Your task to perform on an android device: change notification settings in the gmail app Image 0: 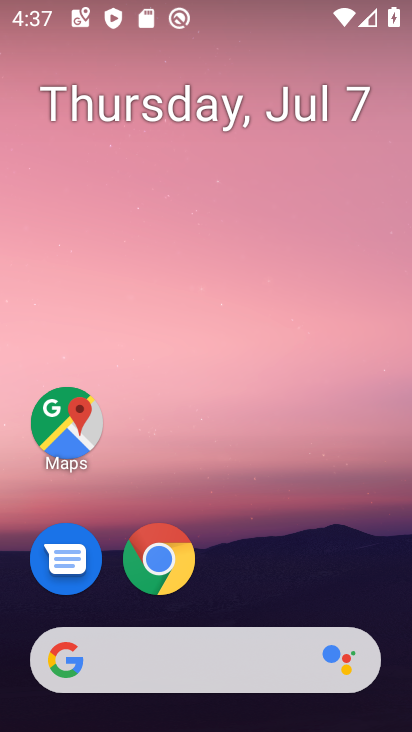
Step 0: drag from (251, 554) to (291, 38)
Your task to perform on an android device: change notification settings in the gmail app Image 1: 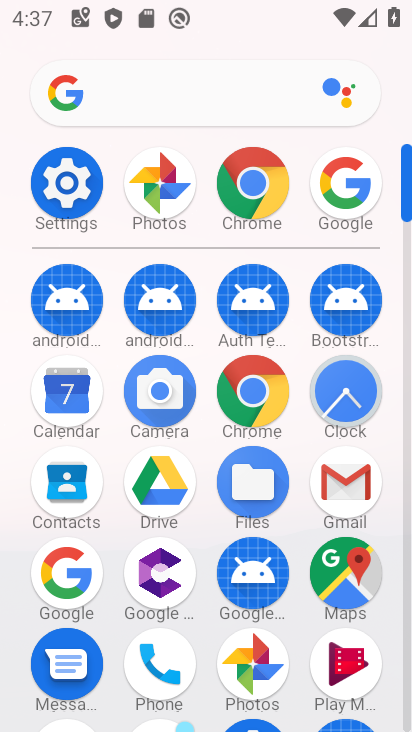
Step 1: click (334, 480)
Your task to perform on an android device: change notification settings in the gmail app Image 2: 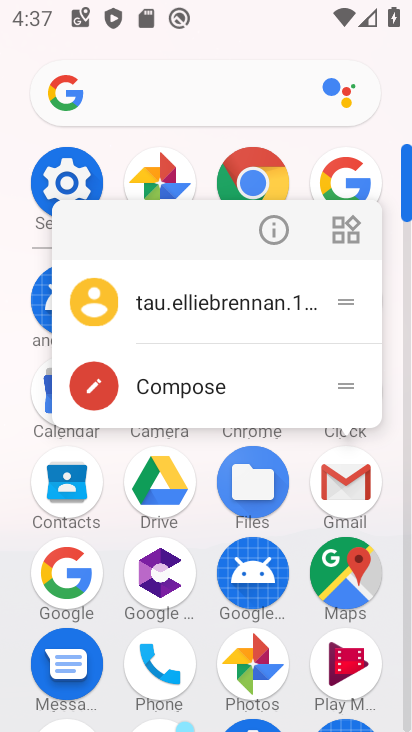
Step 2: click (278, 227)
Your task to perform on an android device: change notification settings in the gmail app Image 3: 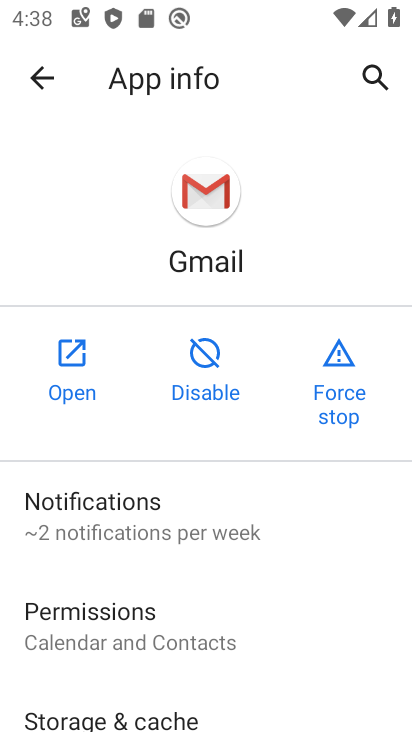
Step 3: click (84, 509)
Your task to perform on an android device: change notification settings in the gmail app Image 4: 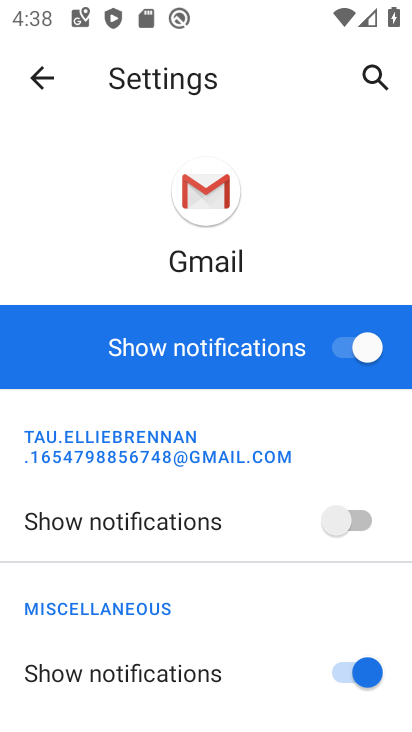
Step 4: click (349, 528)
Your task to perform on an android device: change notification settings in the gmail app Image 5: 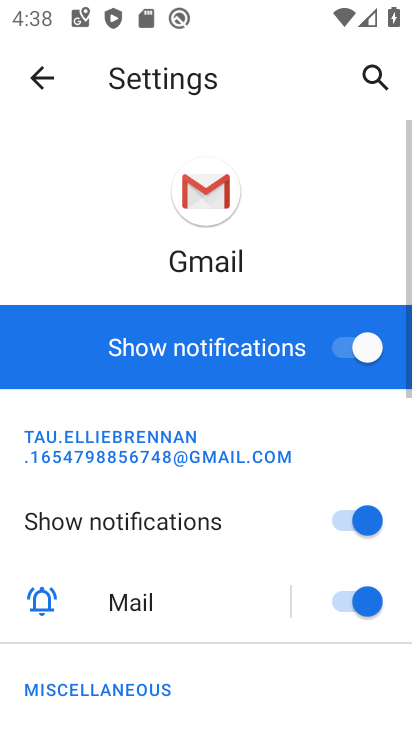
Step 5: task complete